Your task to perform on an android device: visit the assistant section in the google photos Image 0: 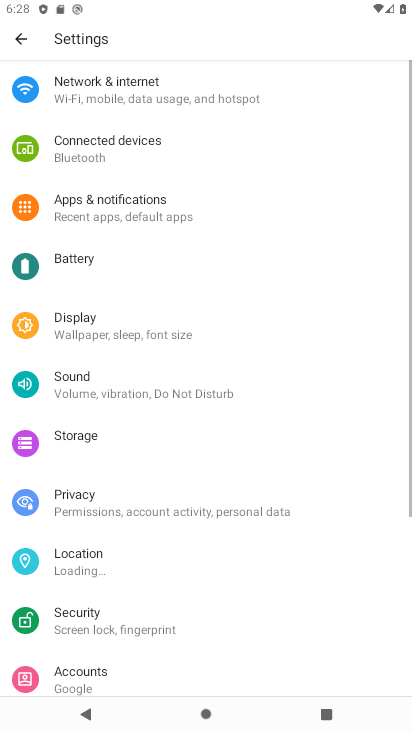
Step 0: drag from (238, 618) to (345, 19)
Your task to perform on an android device: visit the assistant section in the google photos Image 1: 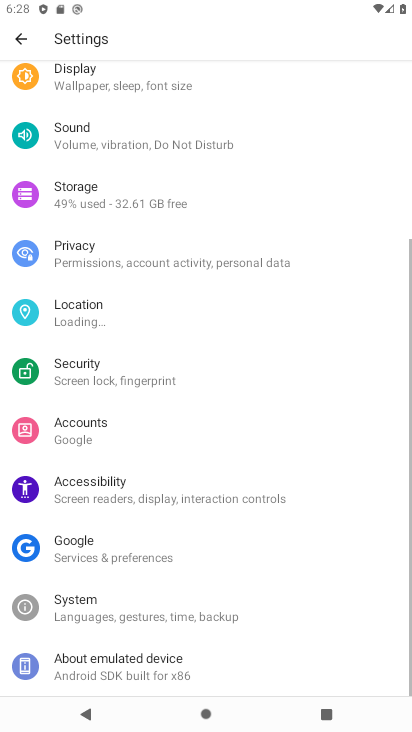
Step 1: press back button
Your task to perform on an android device: visit the assistant section in the google photos Image 2: 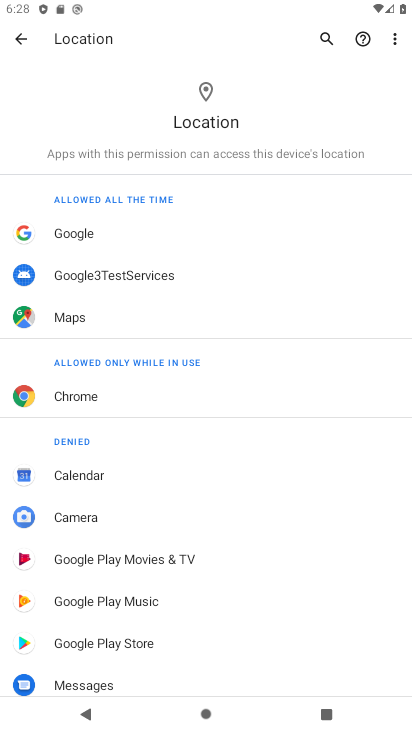
Step 2: press back button
Your task to perform on an android device: visit the assistant section in the google photos Image 3: 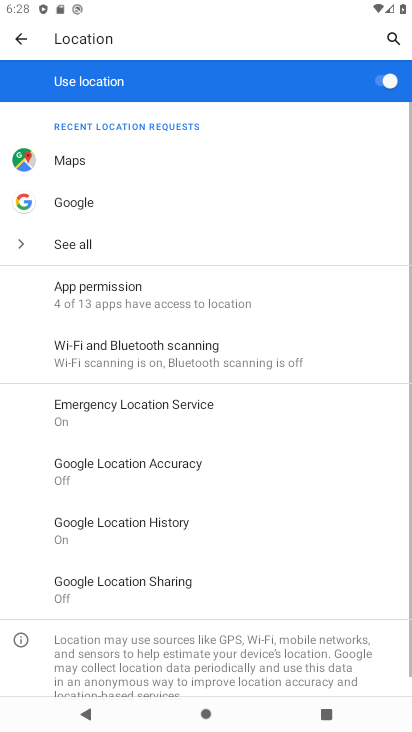
Step 3: press back button
Your task to perform on an android device: visit the assistant section in the google photos Image 4: 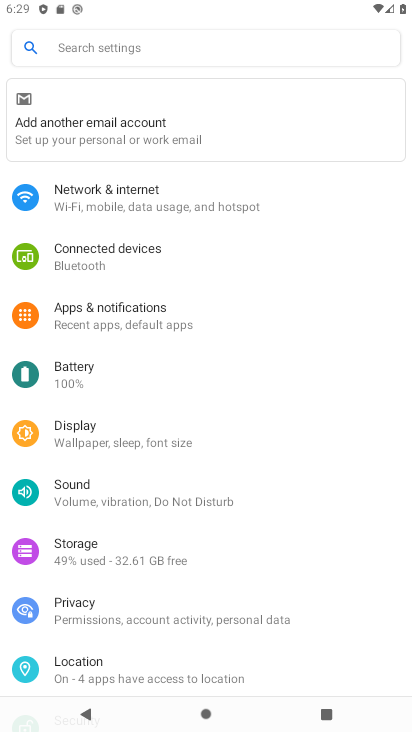
Step 4: press back button
Your task to perform on an android device: visit the assistant section in the google photos Image 5: 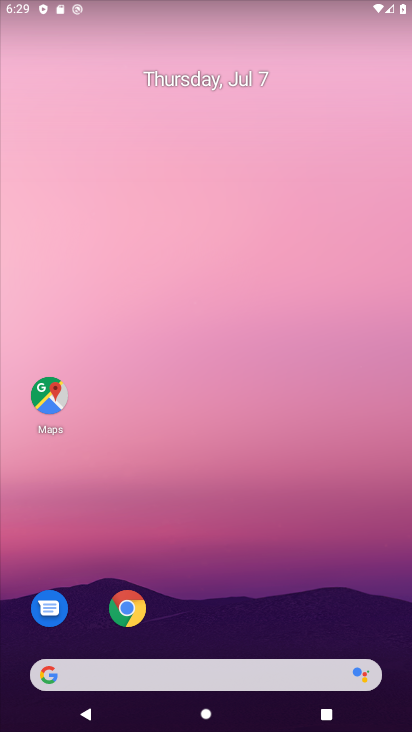
Step 5: drag from (209, 517) to (236, 6)
Your task to perform on an android device: visit the assistant section in the google photos Image 6: 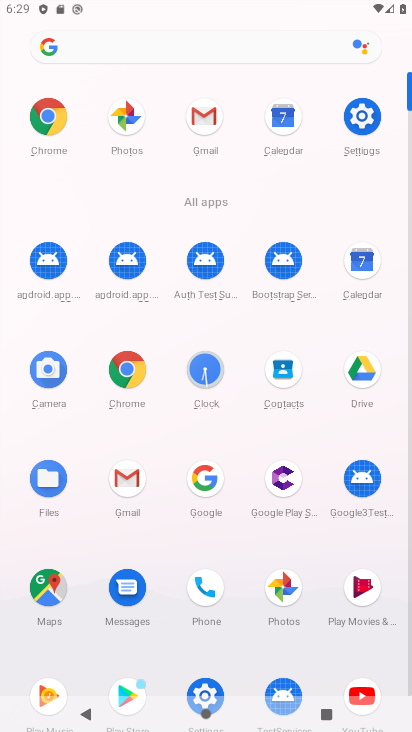
Step 6: click (274, 596)
Your task to perform on an android device: visit the assistant section in the google photos Image 7: 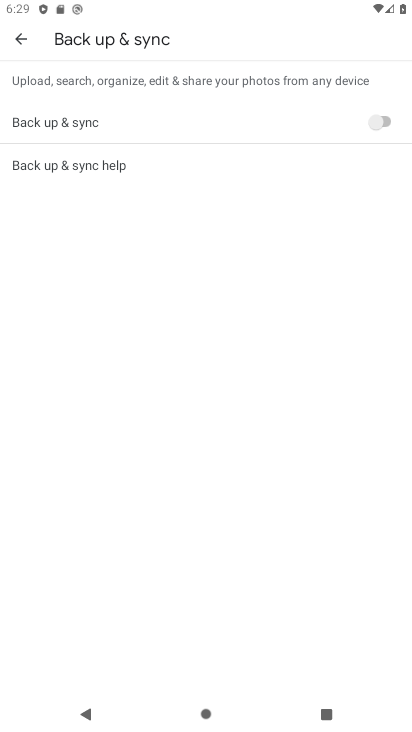
Step 7: click (19, 41)
Your task to perform on an android device: visit the assistant section in the google photos Image 8: 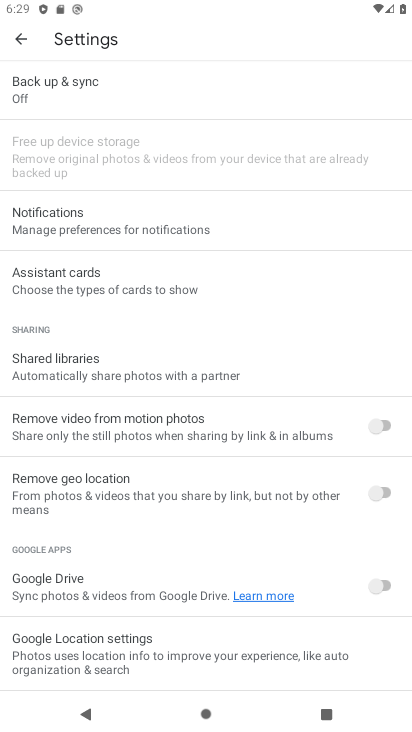
Step 8: click (15, 28)
Your task to perform on an android device: visit the assistant section in the google photos Image 9: 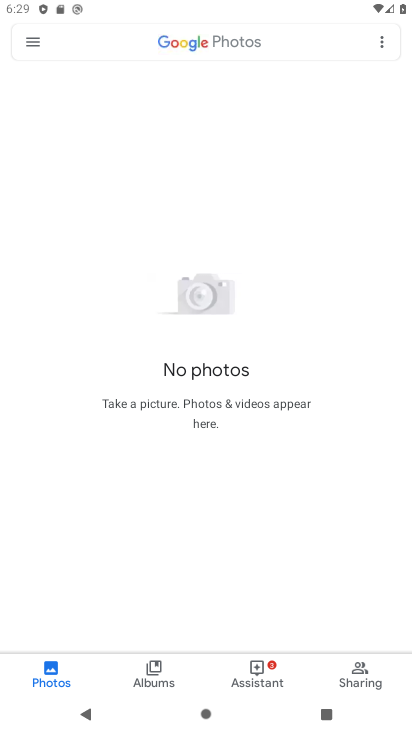
Step 9: click (259, 660)
Your task to perform on an android device: visit the assistant section in the google photos Image 10: 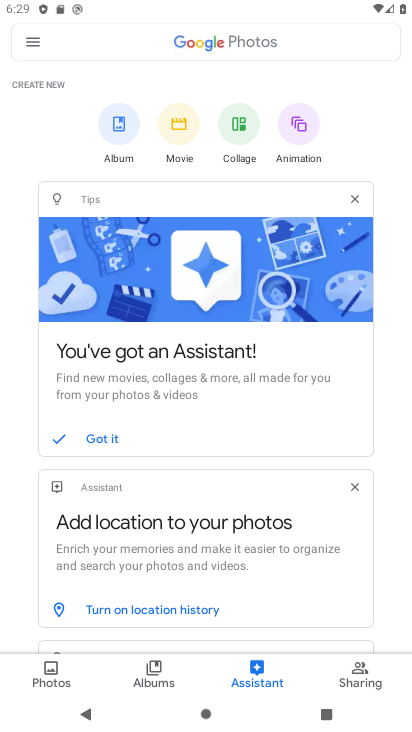
Step 10: task complete